Your task to perform on an android device: see tabs open on other devices in the chrome app Image 0: 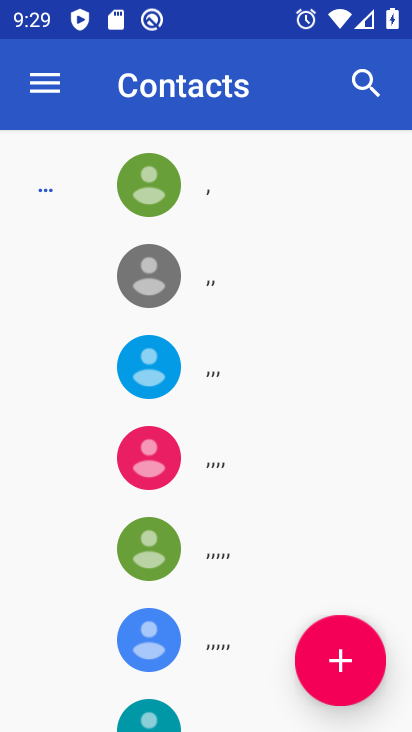
Step 0: press home button
Your task to perform on an android device: see tabs open on other devices in the chrome app Image 1: 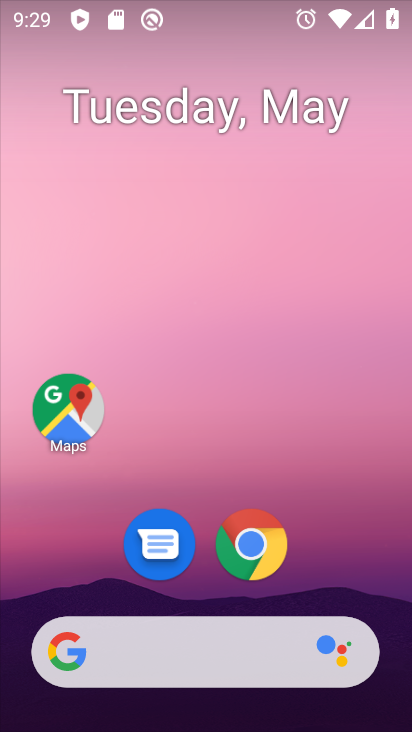
Step 1: drag from (358, 517) to (357, 131)
Your task to perform on an android device: see tabs open on other devices in the chrome app Image 2: 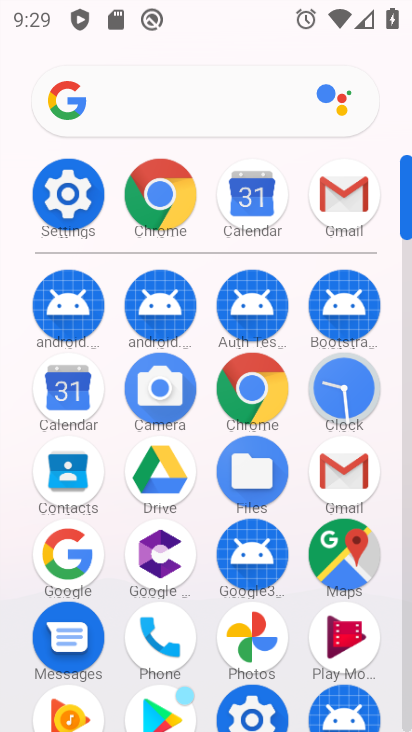
Step 2: click (256, 379)
Your task to perform on an android device: see tabs open on other devices in the chrome app Image 3: 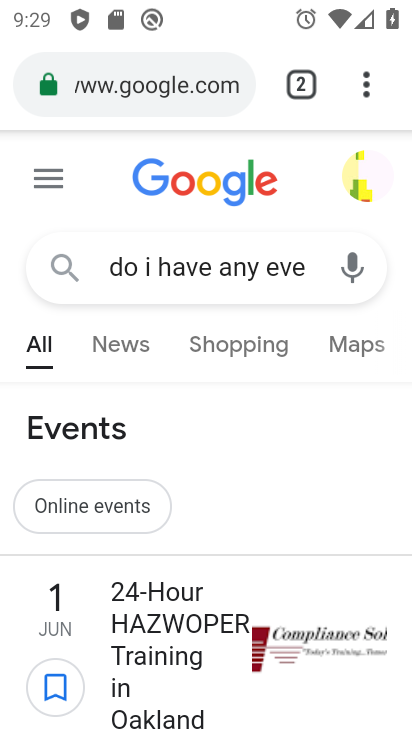
Step 3: click (313, 92)
Your task to perform on an android device: see tabs open on other devices in the chrome app Image 4: 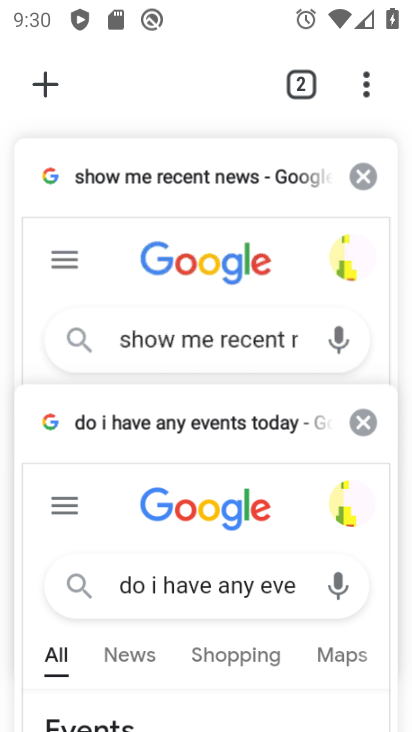
Step 4: task complete